Your task to perform on an android device: turn on notifications settings in the gmail app Image 0: 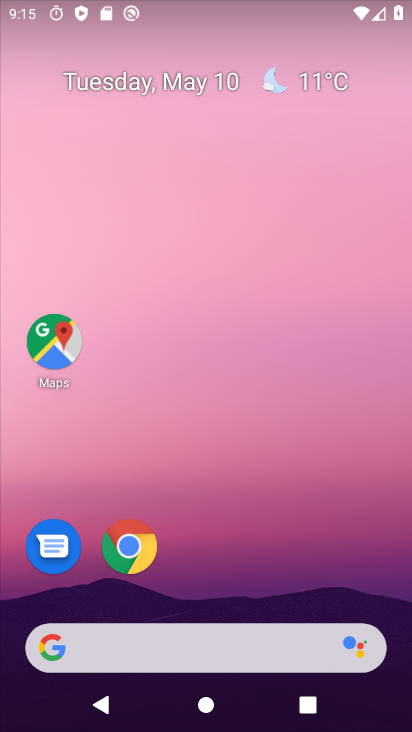
Step 0: drag from (183, 559) to (279, 80)
Your task to perform on an android device: turn on notifications settings in the gmail app Image 1: 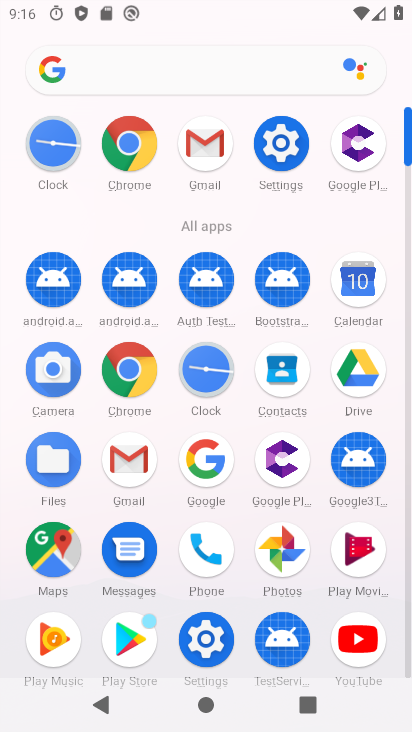
Step 1: drag from (207, 645) to (244, 406)
Your task to perform on an android device: turn on notifications settings in the gmail app Image 2: 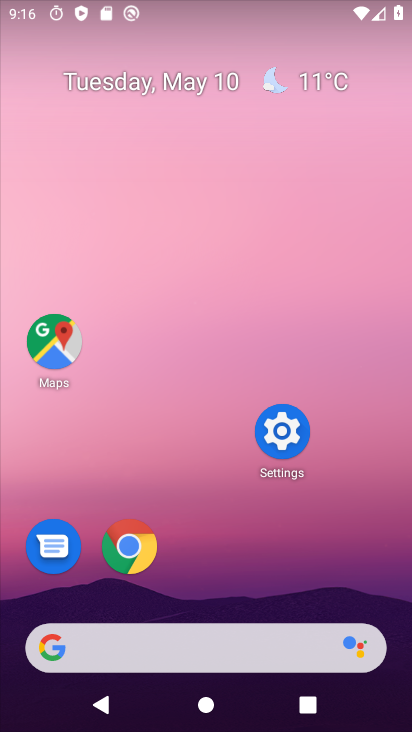
Step 2: drag from (200, 570) to (286, 34)
Your task to perform on an android device: turn on notifications settings in the gmail app Image 3: 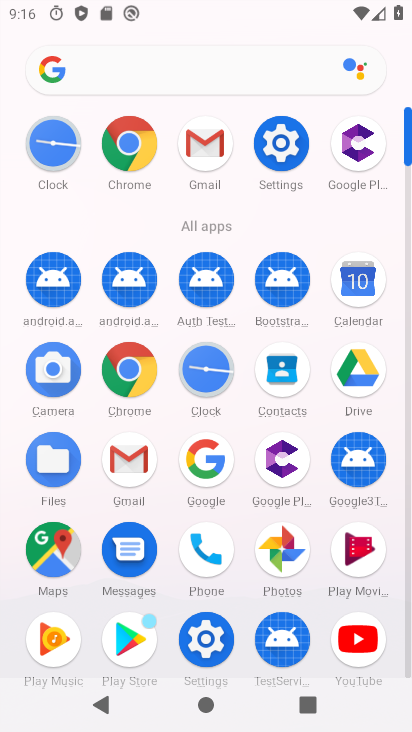
Step 3: click (210, 148)
Your task to perform on an android device: turn on notifications settings in the gmail app Image 4: 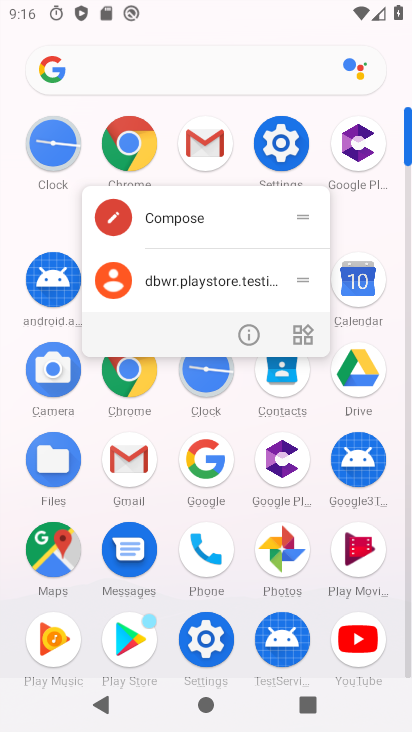
Step 4: click (257, 330)
Your task to perform on an android device: turn on notifications settings in the gmail app Image 5: 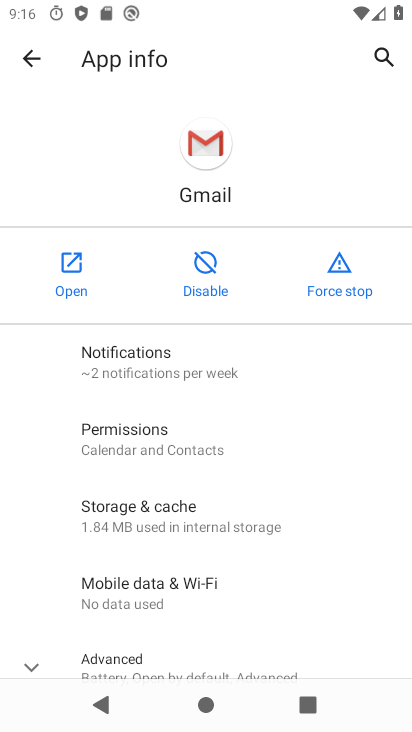
Step 5: click (203, 360)
Your task to perform on an android device: turn on notifications settings in the gmail app Image 6: 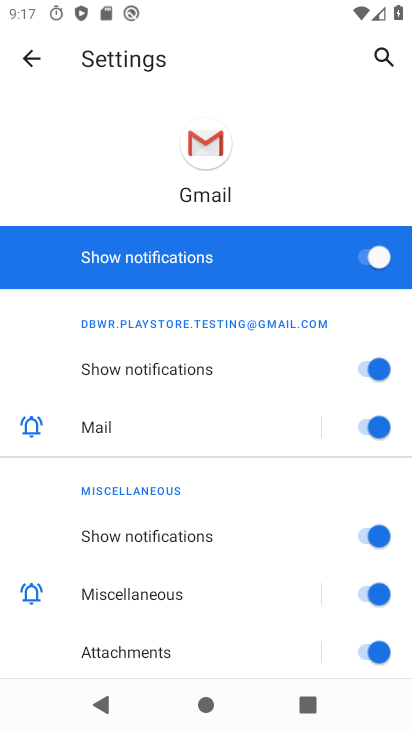
Step 6: task complete